Your task to perform on an android device: toggle sleep mode Image 0: 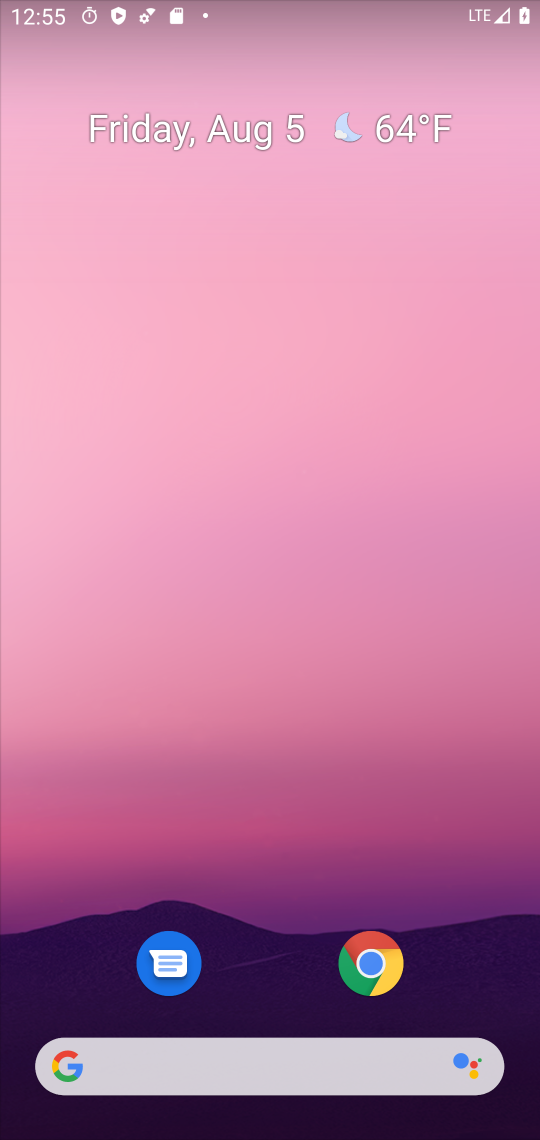
Step 0: drag from (262, 880) to (197, 18)
Your task to perform on an android device: toggle sleep mode Image 1: 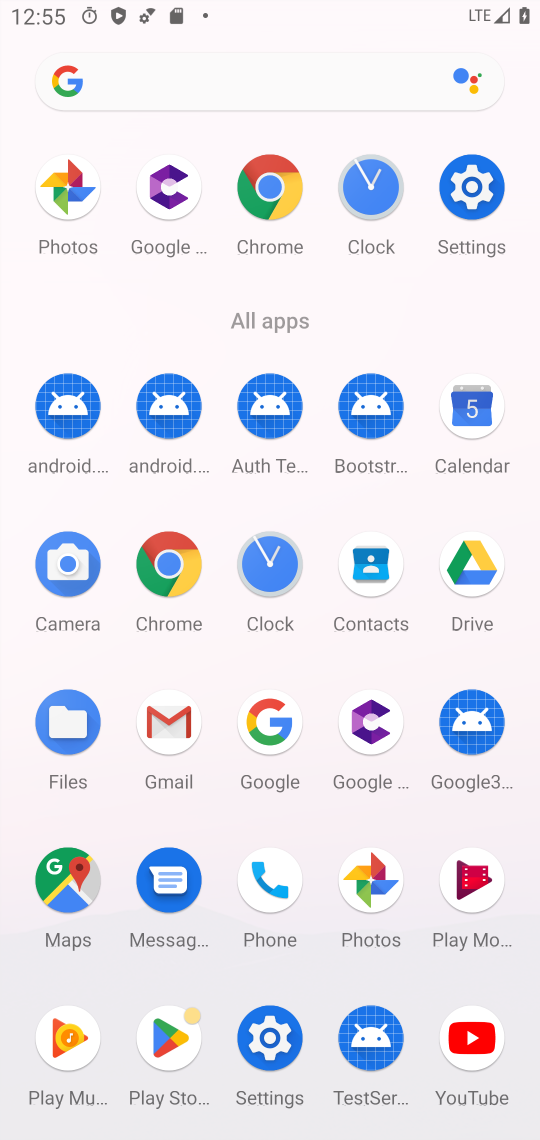
Step 1: click (467, 189)
Your task to perform on an android device: toggle sleep mode Image 2: 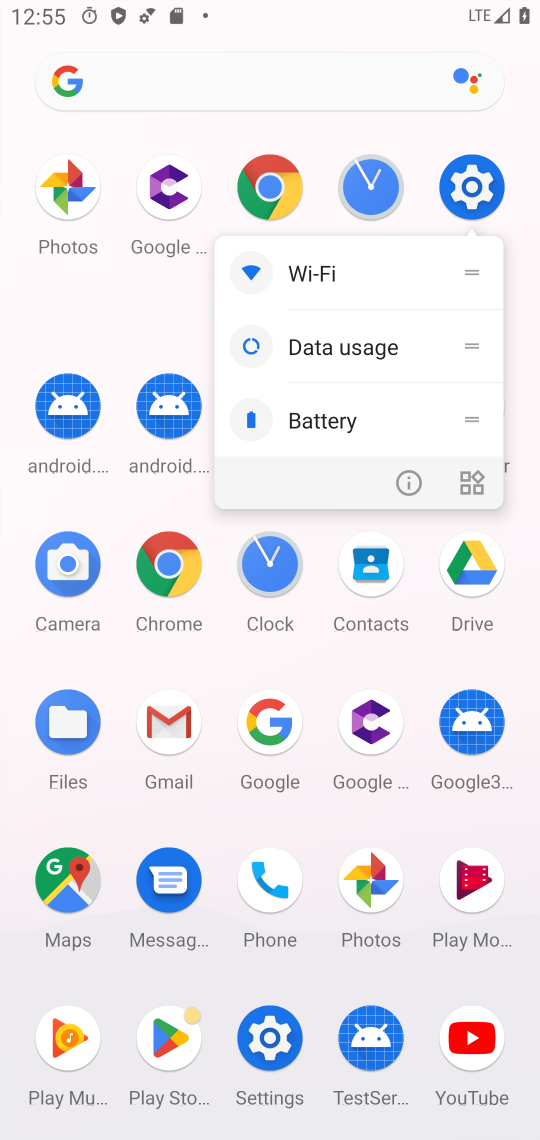
Step 2: click (467, 189)
Your task to perform on an android device: toggle sleep mode Image 3: 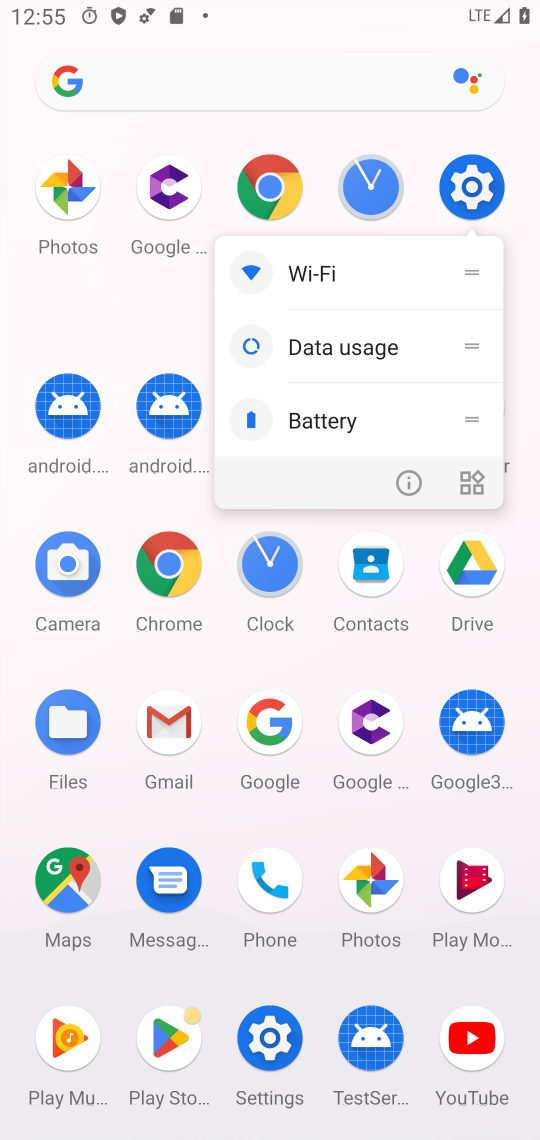
Step 3: click (467, 189)
Your task to perform on an android device: toggle sleep mode Image 4: 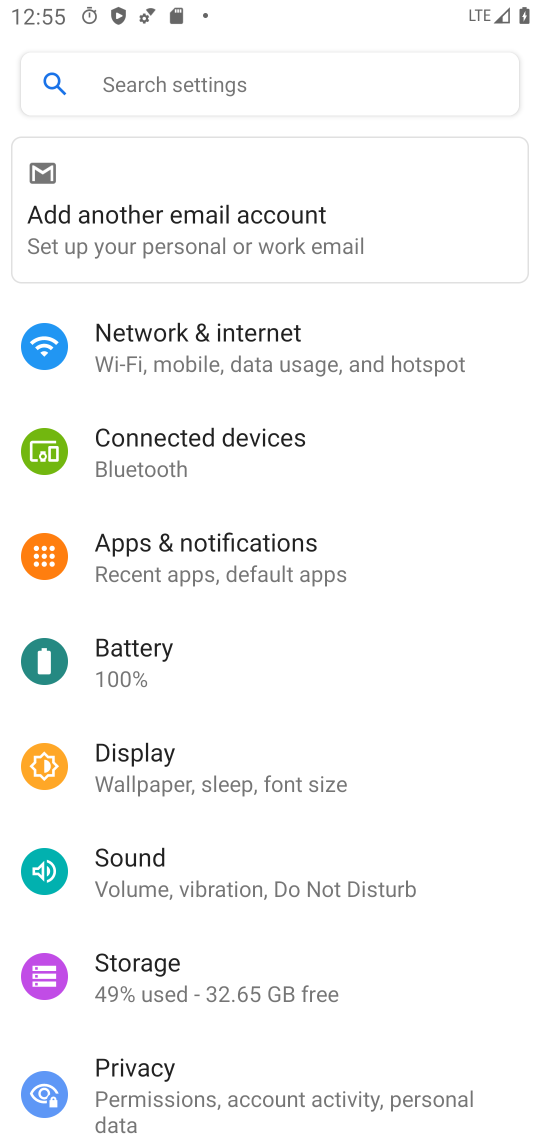
Step 4: click (201, 777)
Your task to perform on an android device: toggle sleep mode Image 5: 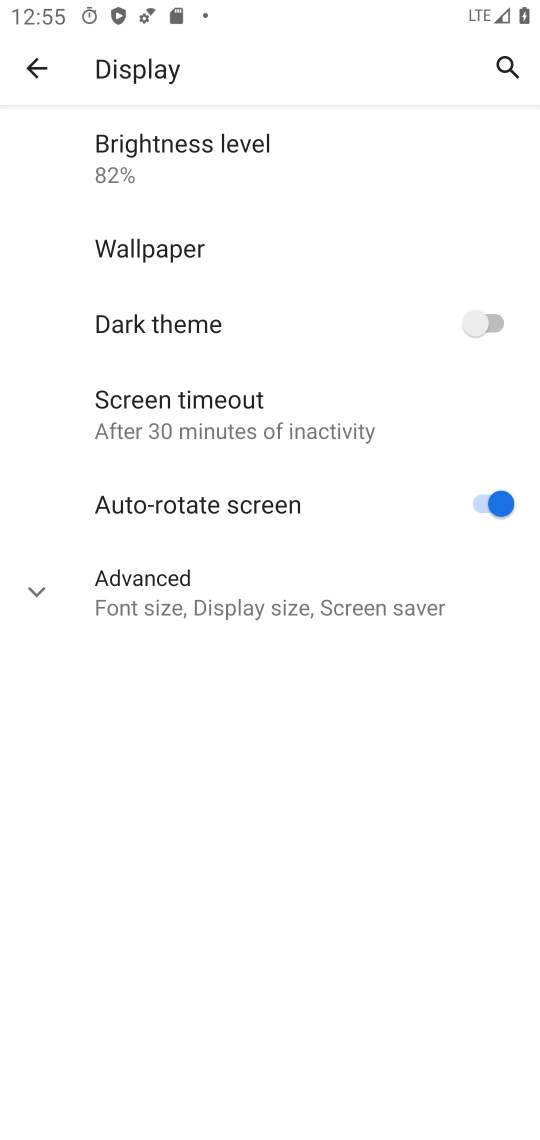
Step 5: click (123, 425)
Your task to perform on an android device: toggle sleep mode Image 6: 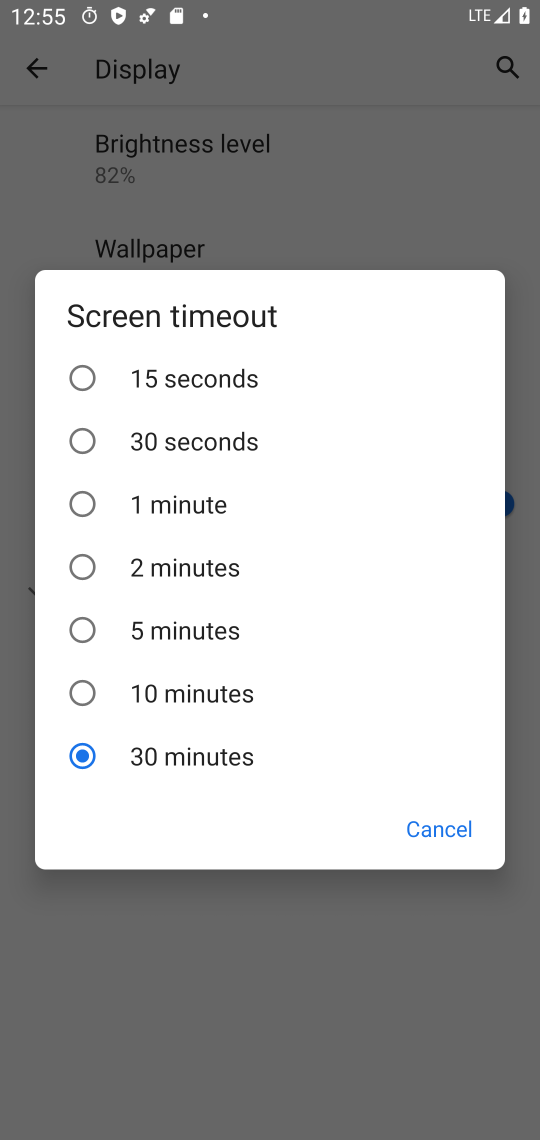
Step 6: click (126, 570)
Your task to perform on an android device: toggle sleep mode Image 7: 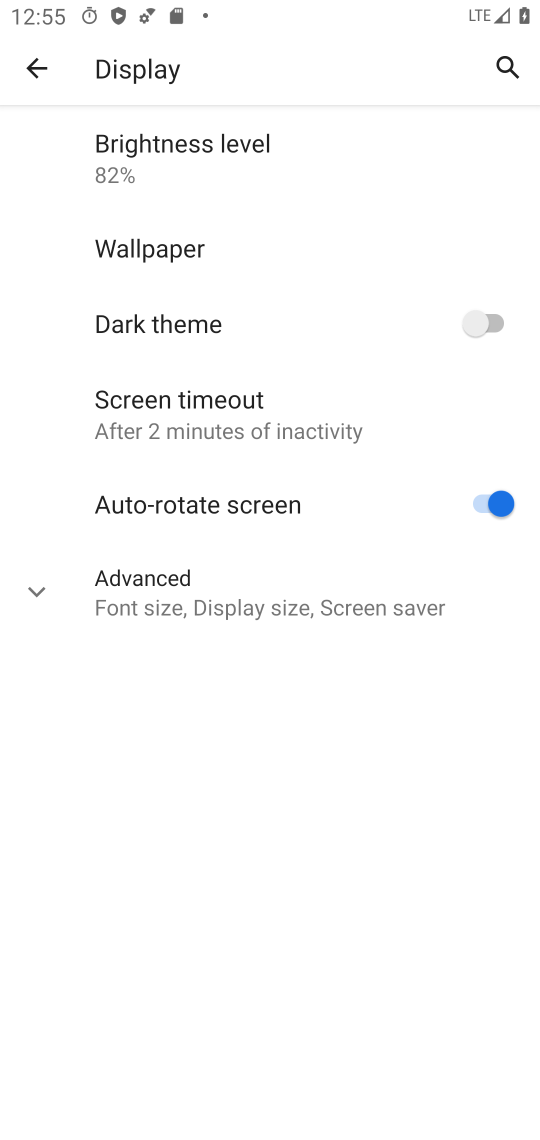
Step 7: task complete